Your task to perform on an android device: turn off notifications in google photos Image 0: 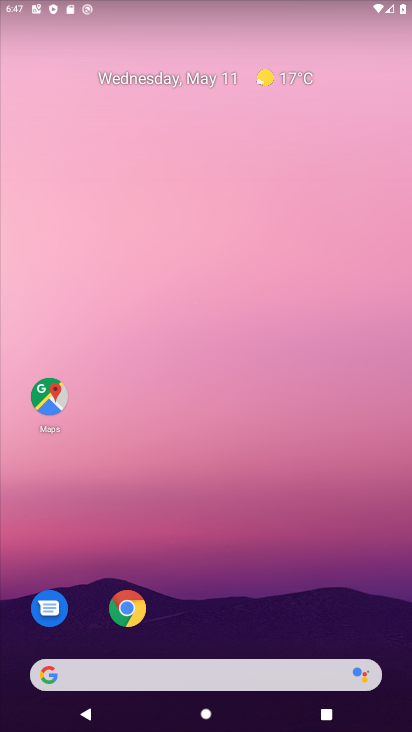
Step 0: click (55, 402)
Your task to perform on an android device: turn off notifications in google photos Image 1: 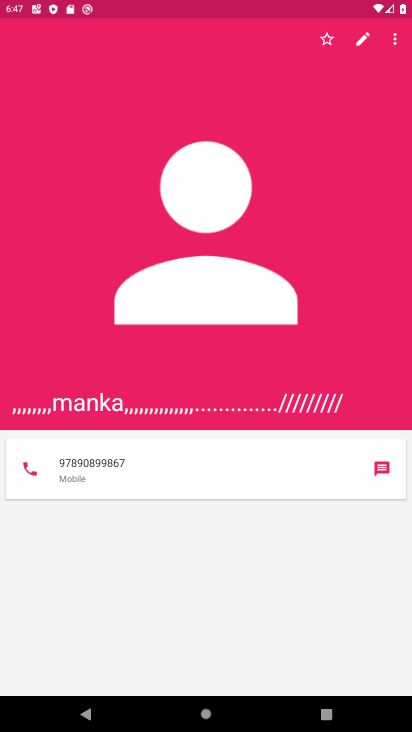
Step 1: press home button
Your task to perform on an android device: turn off notifications in google photos Image 2: 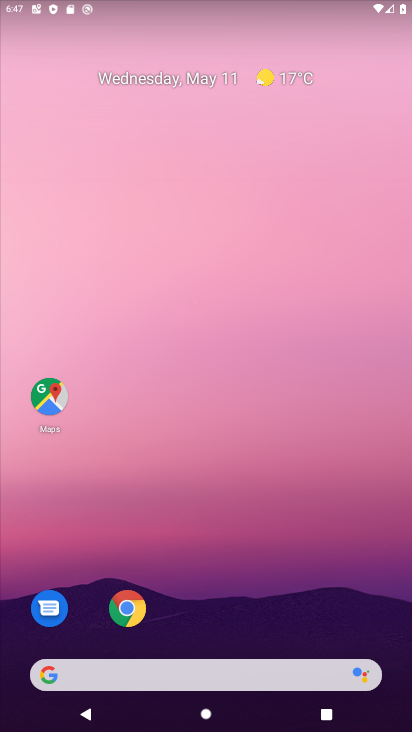
Step 2: drag from (244, 620) to (219, 29)
Your task to perform on an android device: turn off notifications in google photos Image 3: 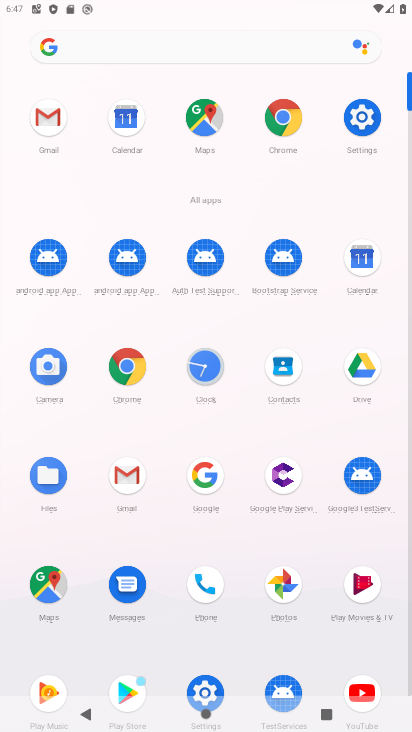
Step 3: click (281, 607)
Your task to perform on an android device: turn off notifications in google photos Image 4: 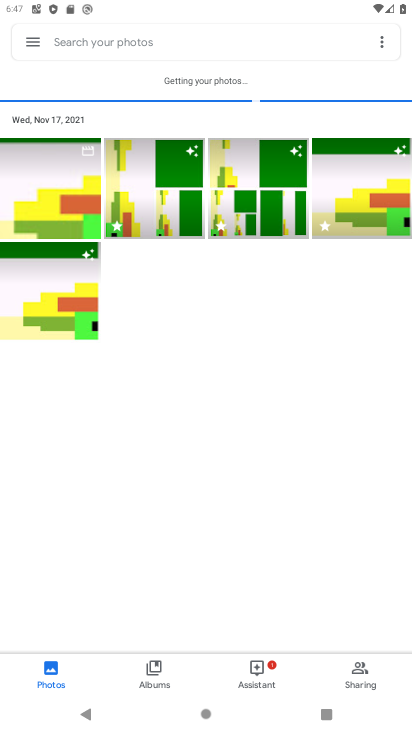
Step 4: click (41, 53)
Your task to perform on an android device: turn off notifications in google photos Image 5: 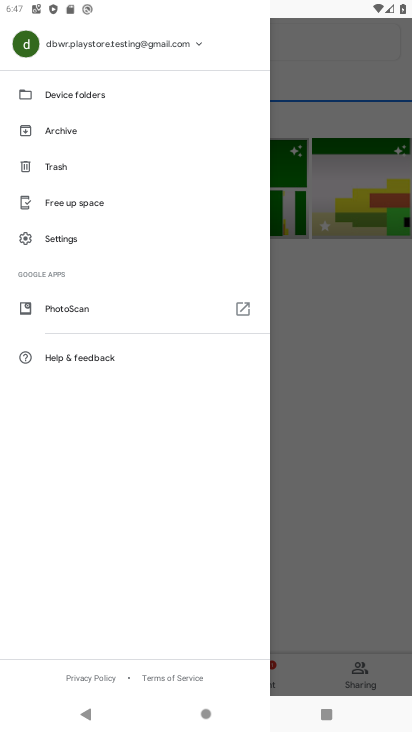
Step 5: click (89, 244)
Your task to perform on an android device: turn off notifications in google photos Image 6: 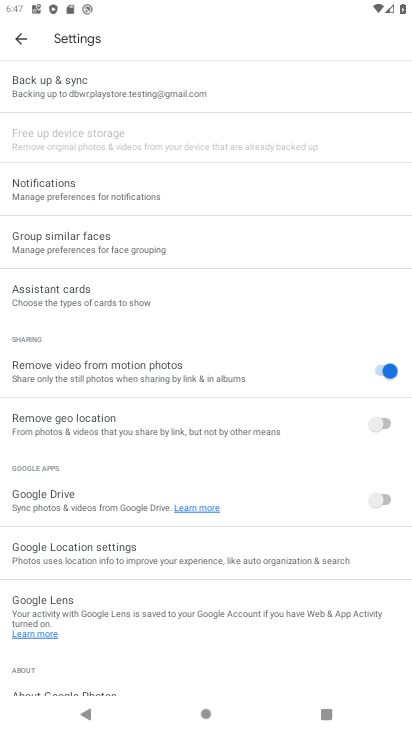
Step 6: click (126, 179)
Your task to perform on an android device: turn off notifications in google photos Image 7: 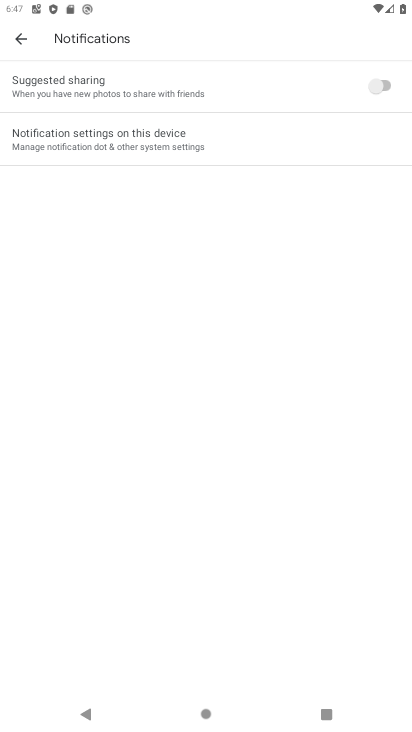
Step 7: task complete